Your task to perform on an android device: turn on data saver in the chrome app Image 0: 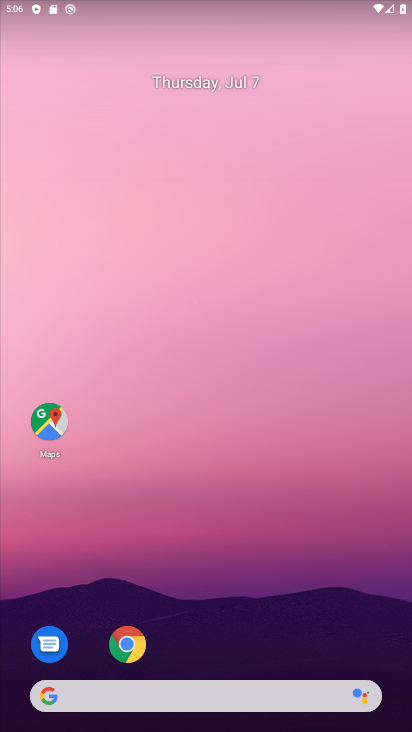
Step 0: drag from (264, 615) to (184, 115)
Your task to perform on an android device: turn on data saver in the chrome app Image 1: 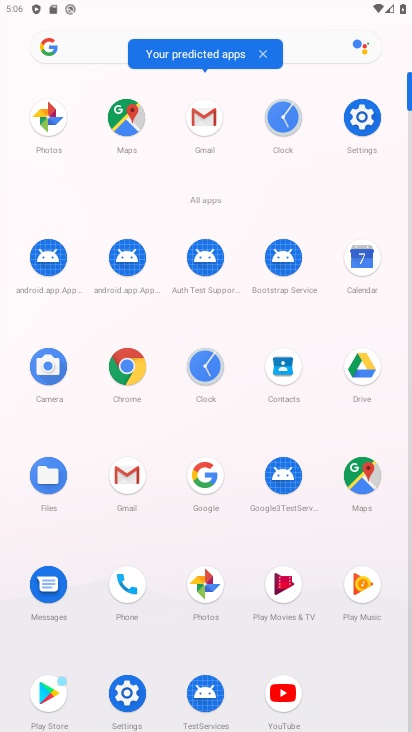
Step 1: click (134, 365)
Your task to perform on an android device: turn on data saver in the chrome app Image 2: 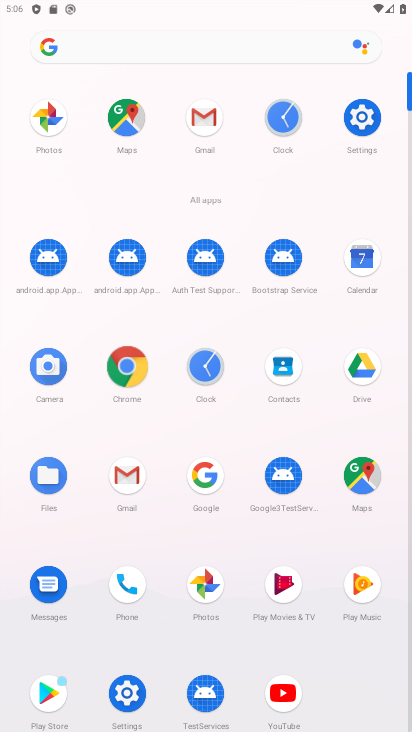
Step 2: click (134, 365)
Your task to perform on an android device: turn on data saver in the chrome app Image 3: 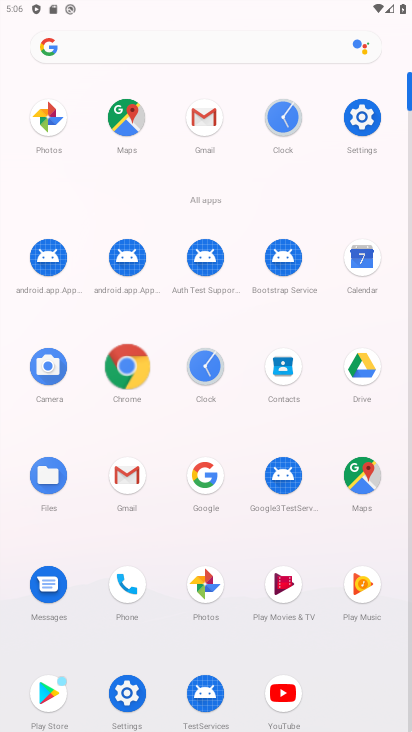
Step 3: click (135, 365)
Your task to perform on an android device: turn on data saver in the chrome app Image 4: 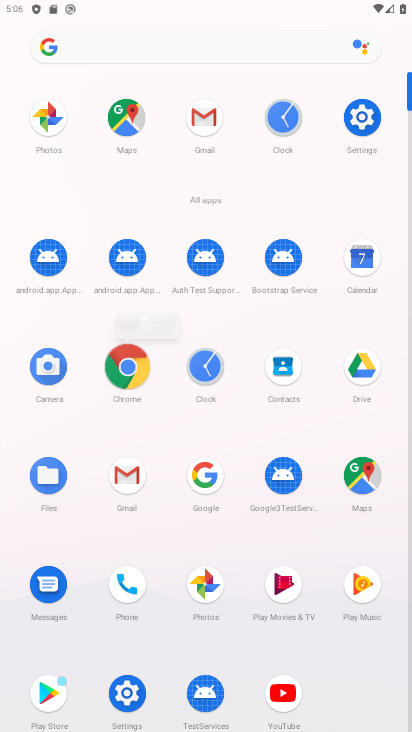
Step 4: click (135, 365)
Your task to perform on an android device: turn on data saver in the chrome app Image 5: 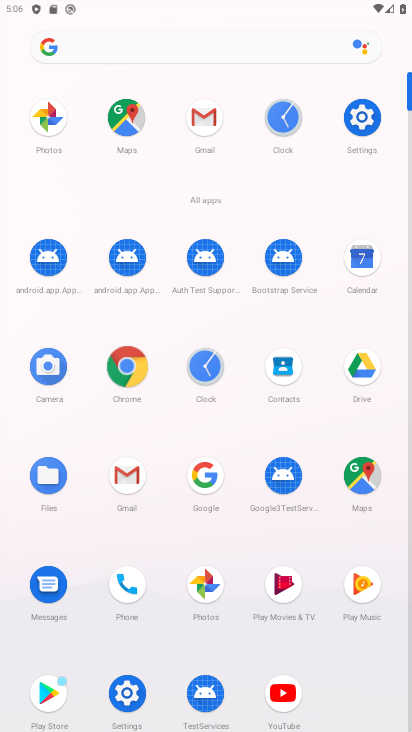
Step 5: click (135, 365)
Your task to perform on an android device: turn on data saver in the chrome app Image 6: 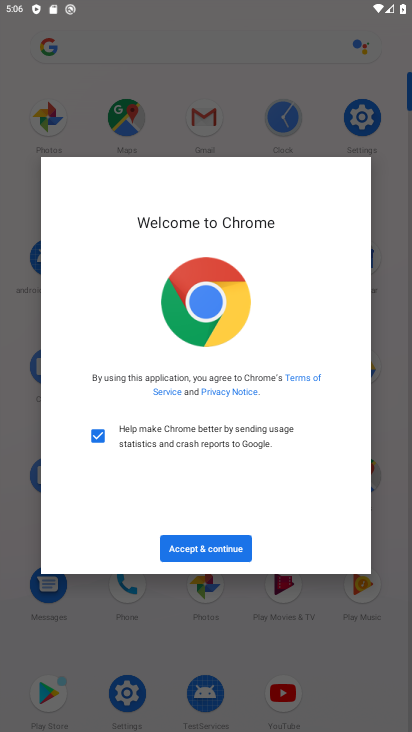
Step 6: click (126, 380)
Your task to perform on an android device: turn on data saver in the chrome app Image 7: 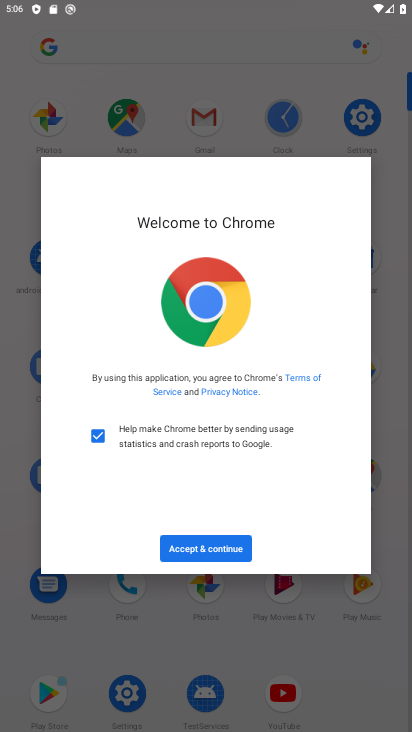
Step 7: click (129, 378)
Your task to perform on an android device: turn on data saver in the chrome app Image 8: 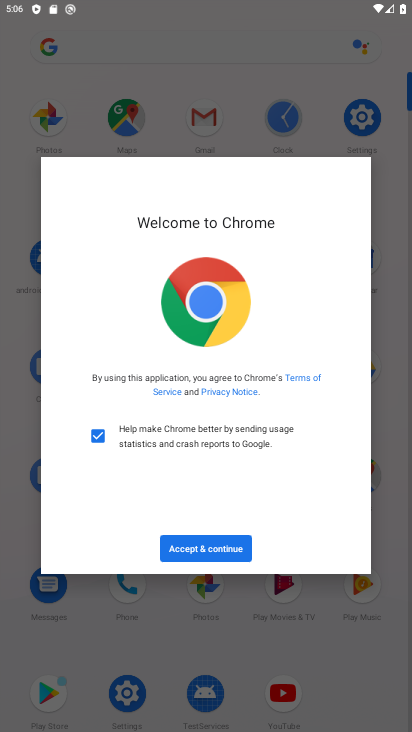
Step 8: drag from (374, 279) to (394, 227)
Your task to perform on an android device: turn on data saver in the chrome app Image 9: 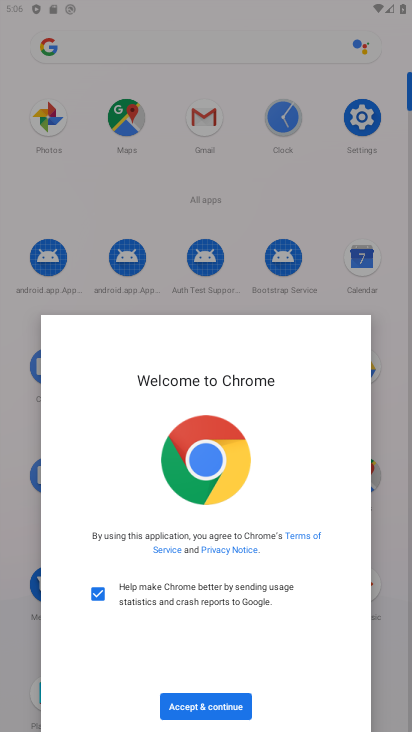
Step 9: click (231, 534)
Your task to perform on an android device: turn on data saver in the chrome app Image 10: 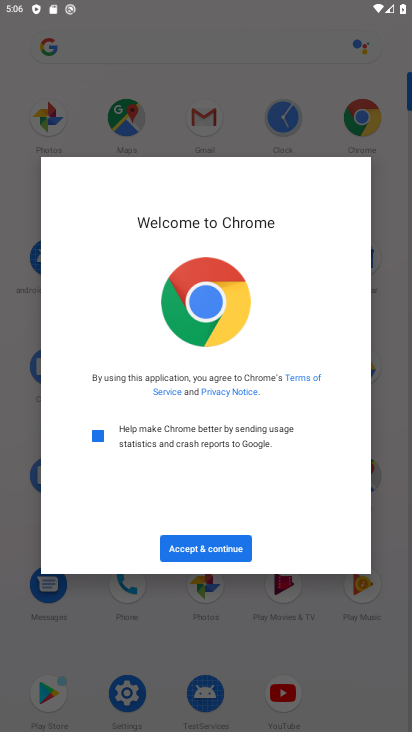
Step 10: click (246, 94)
Your task to perform on an android device: turn on data saver in the chrome app Image 11: 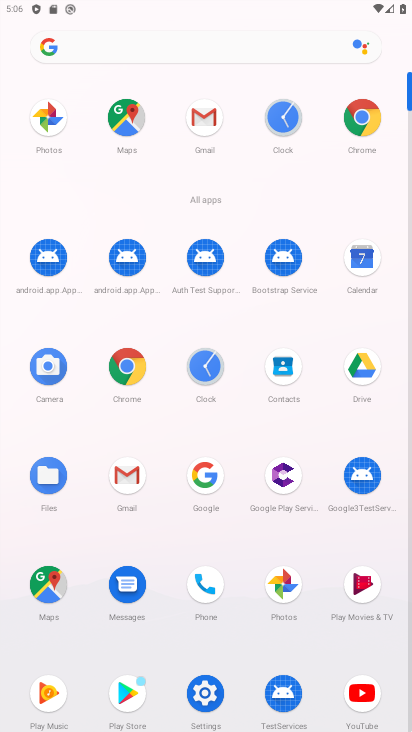
Step 11: click (126, 376)
Your task to perform on an android device: turn on data saver in the chrome app Image 12: 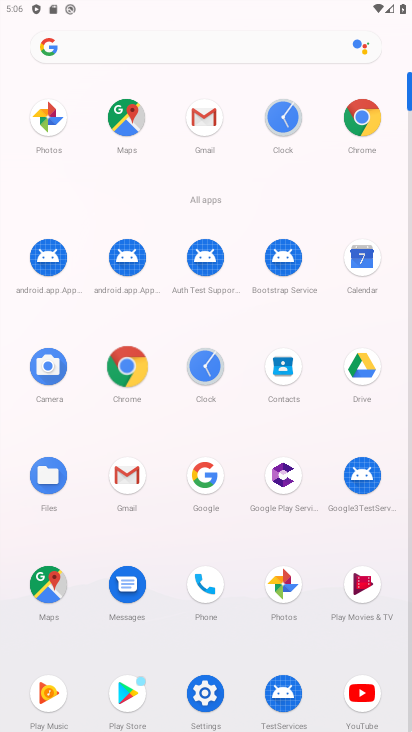
Step 12: click (126, 376)
Your task to perform on an android device: turn on data saver in the chrome app Image 13: 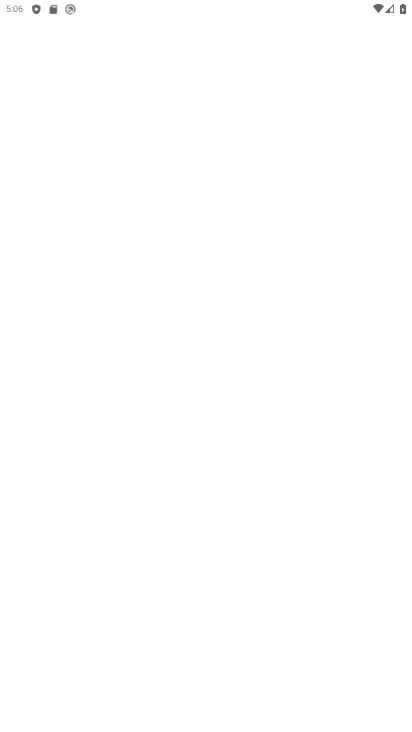
Step 13: click (127, 375)
Your task to perform on an android device: turn on data saver in the chrome app Image 14: 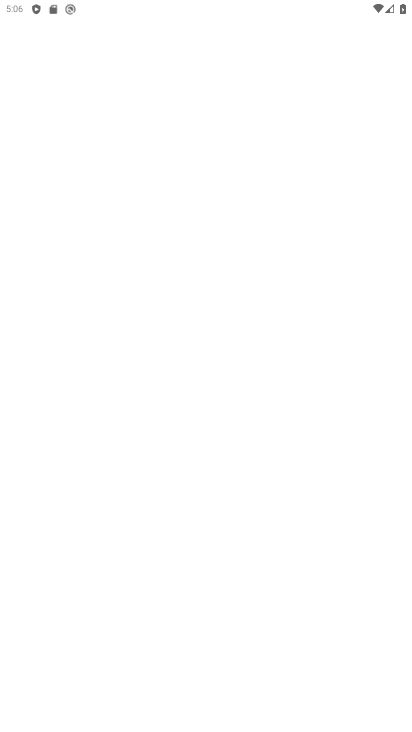
Step 14: click (128, 374)
Your task to perform on an android device: turn on data saver in the chrome app Image 15: 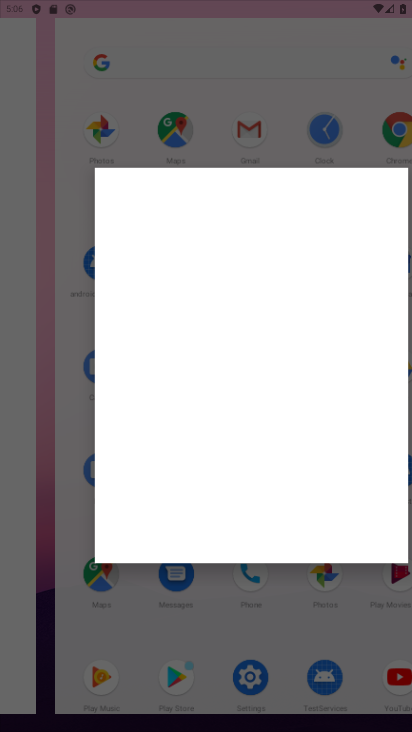
Step 15: click (128, 374)
Your task to perform on an android device: turn on data saver in the chrome app Image 16: 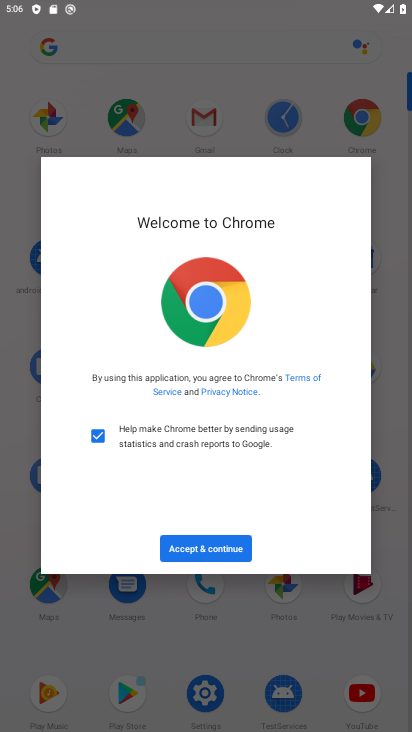
Step 16: click (198, 549)
Your task to perform on an android device: turn on data saver in the chrome app Image 17: 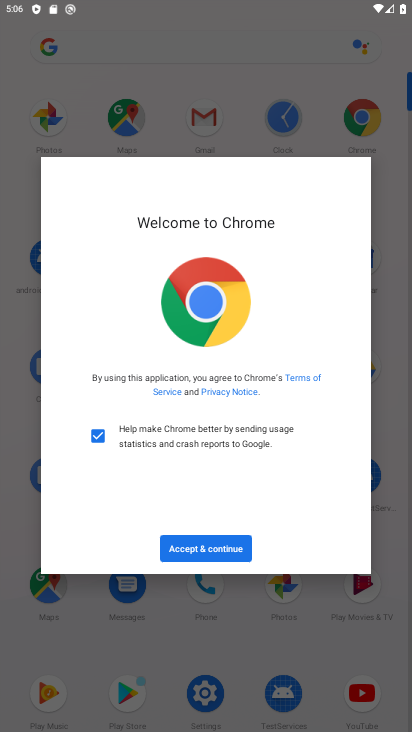
Step 17: click (200, 546)
Your task to perform on an android device: turn on data saver in the chrome app Image 18: 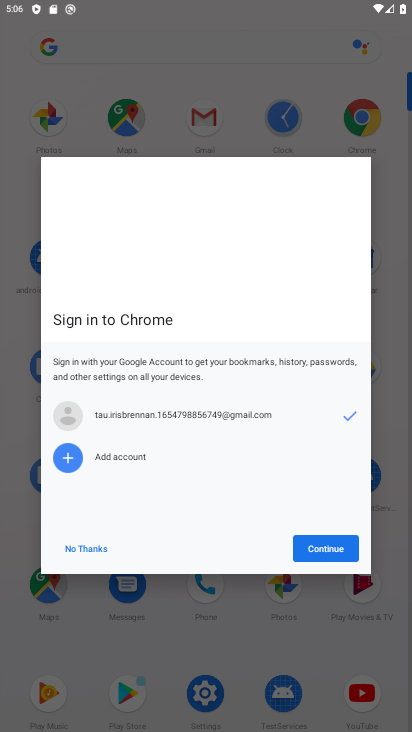
Step 18: click (202, 545)
Your task to perform on an android device: turn on data saver in the chrome app Image 19: 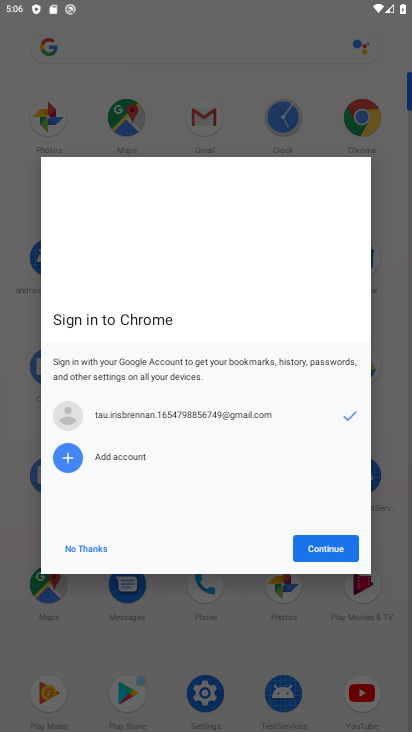
Step 19: click (321, 538)
Your task to perform on an android device: turn on data saver in the chrome app Image 20: 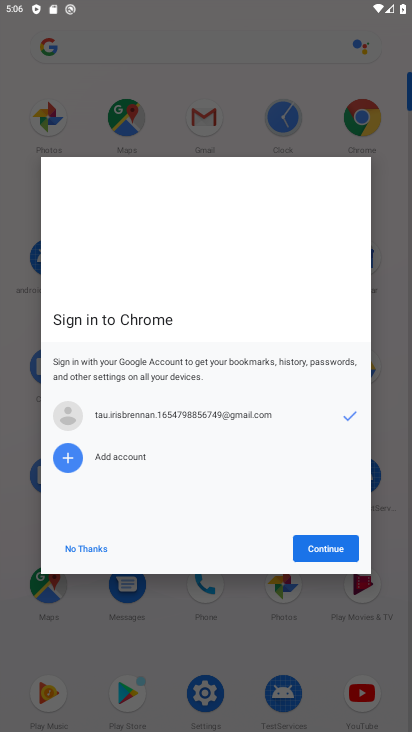
Step 20: click (321, 538)
Your task to perform on an android device: turn on data saver in the chrome app Image 21: 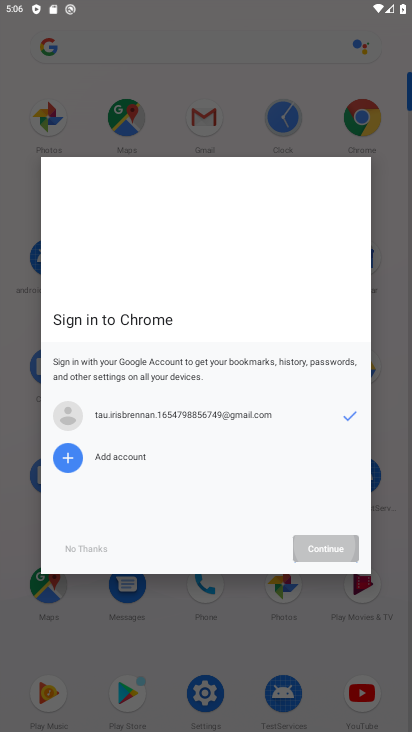
Step 21: click (322, 538)
Your task to perform on an android device: turn on data saver in the chrome app Image 22: 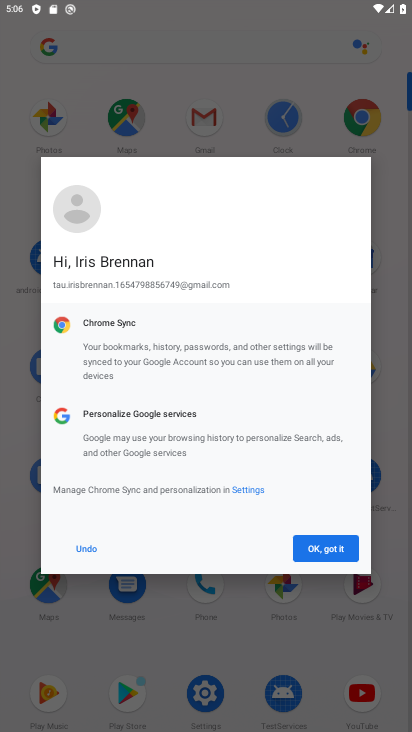
Step 22: click (338, 545)
Your task to perform on an android device: turn on data saver in the chrome app Image 23: 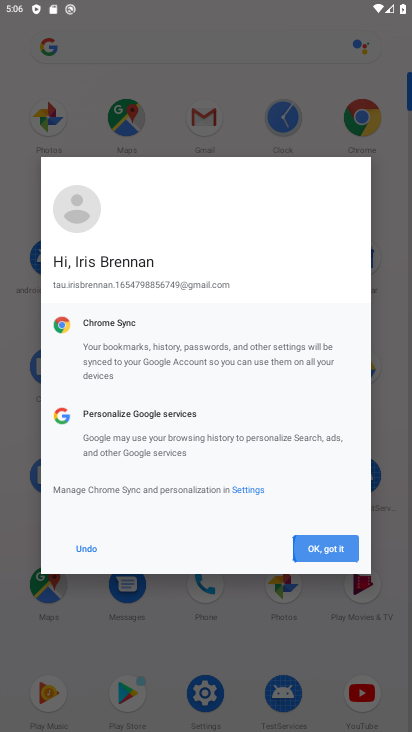
Step 23: click (338, 542)
Your task to perform on an android device: turn on data saver in the chrome app Image 24: 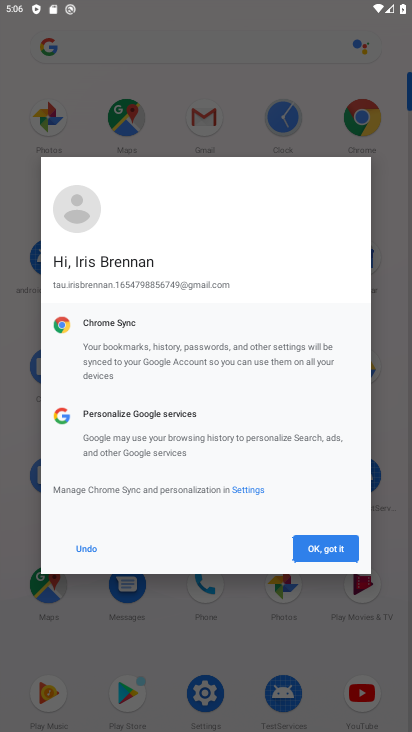
Step 24: click (338, 542)
Your task to perform on an android device: turn on data saver in the chrome app Image 25: 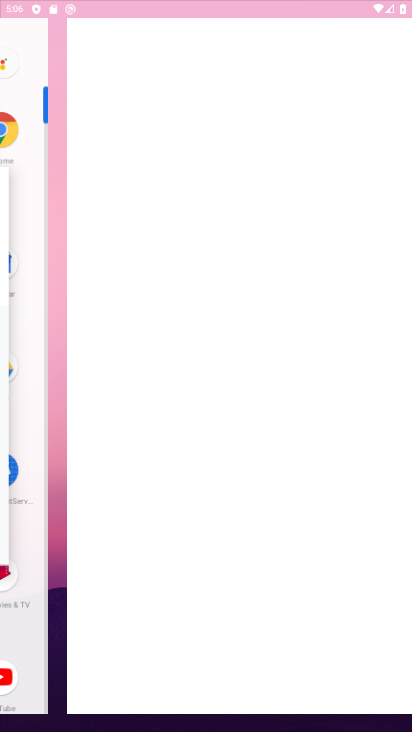
Step 25: click (339, 542)
Your task to perform on an android device: turn on data saver in the chrome app Image 26: 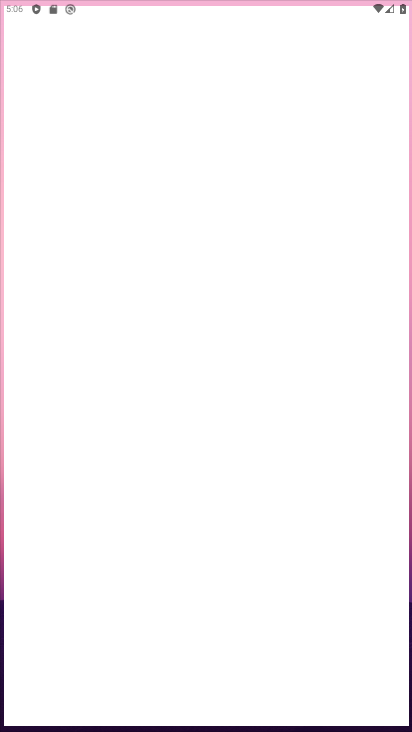
Step 26: click (339, 543)
Your task to perform on an android device: turn on data saver in the chrome app Image 27: 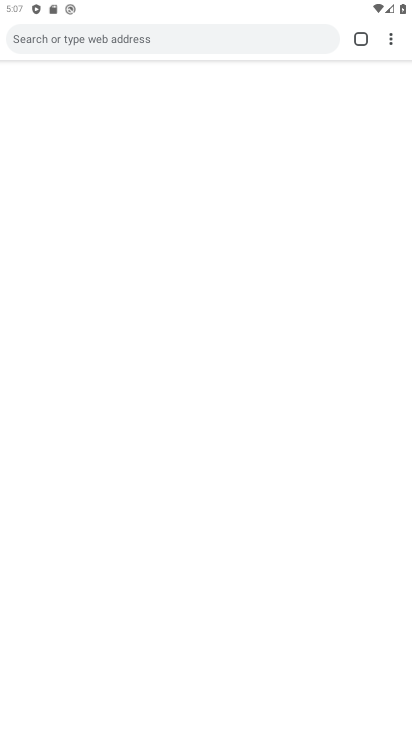
Step 27: click (339, 543)
Your task to perform on an android device: turn on data saver in the chrome app Image 28: 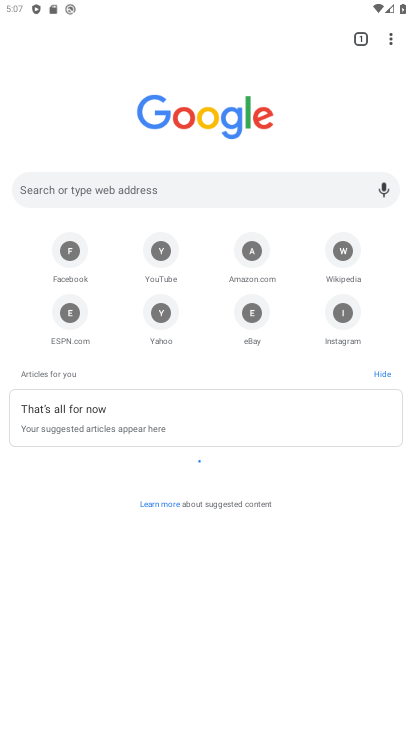
Step 28: drag from (393, 47) to (244, 324)
Your task to perform on an android device: turn on data saver in the chrome app Image 29: 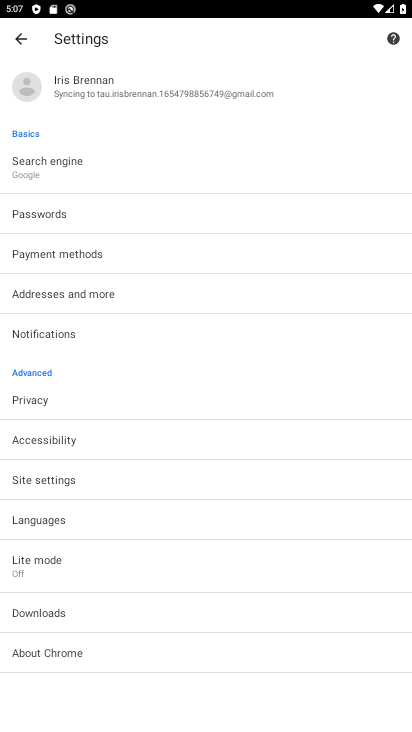
Step 29: click (63, 549)
Your task to perform on an android device: turn on data saver in the chrome app Image 30: 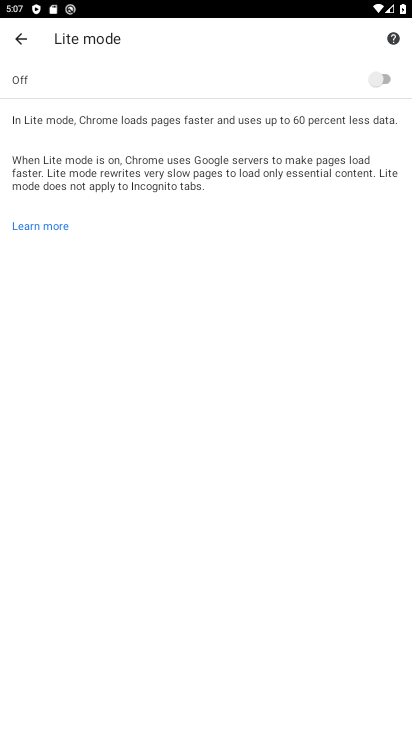
Step 30: click (371, 82)
Your task to perform on an android device: turn on data saver in the chrome app Image 31: 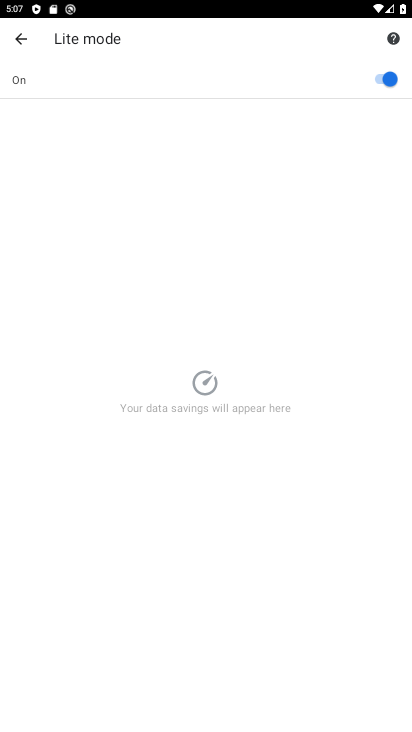
Step 31: task complete